Your task to perform on an android device: Open a new incognito tab in Chrome Image 0: 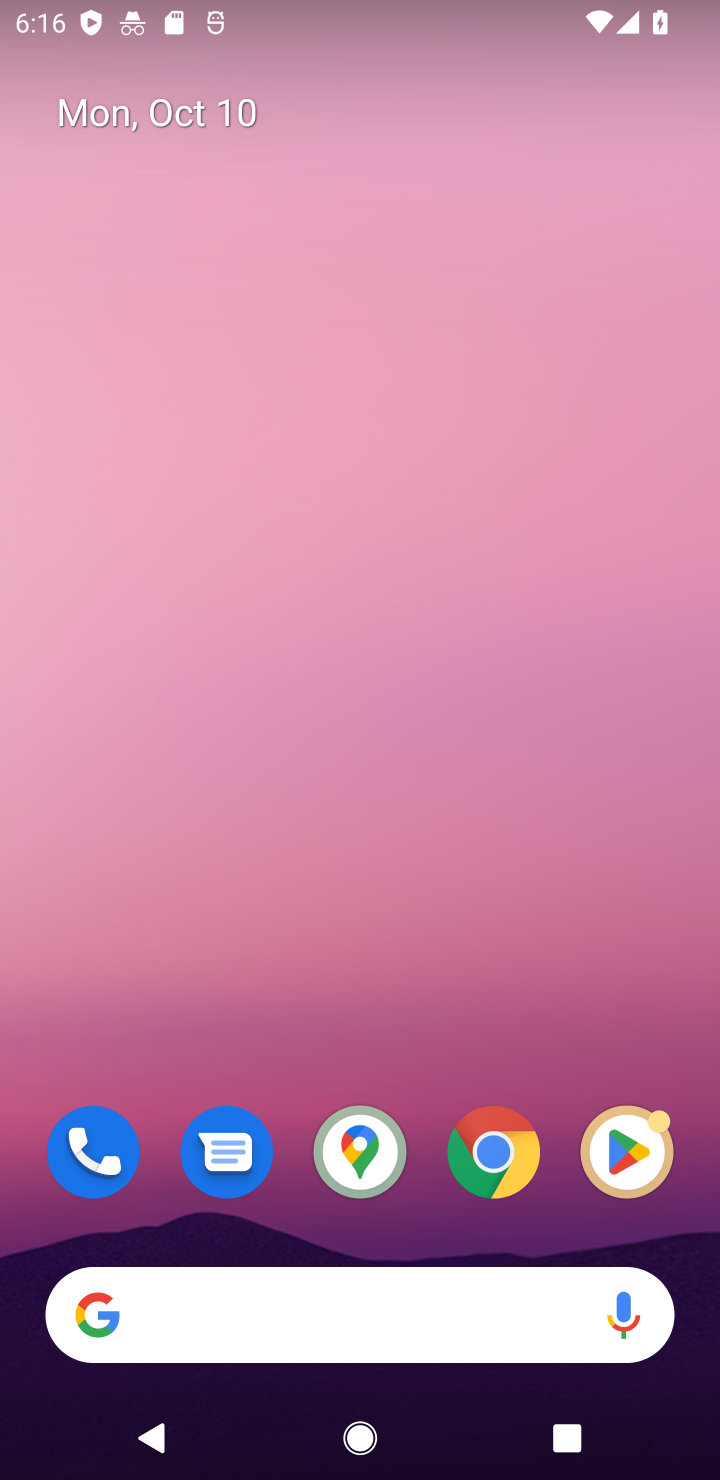
Step 0: click (492, 1155)
Your task to perform on an android device: Open a new incognito tab in Chrome Image 1: 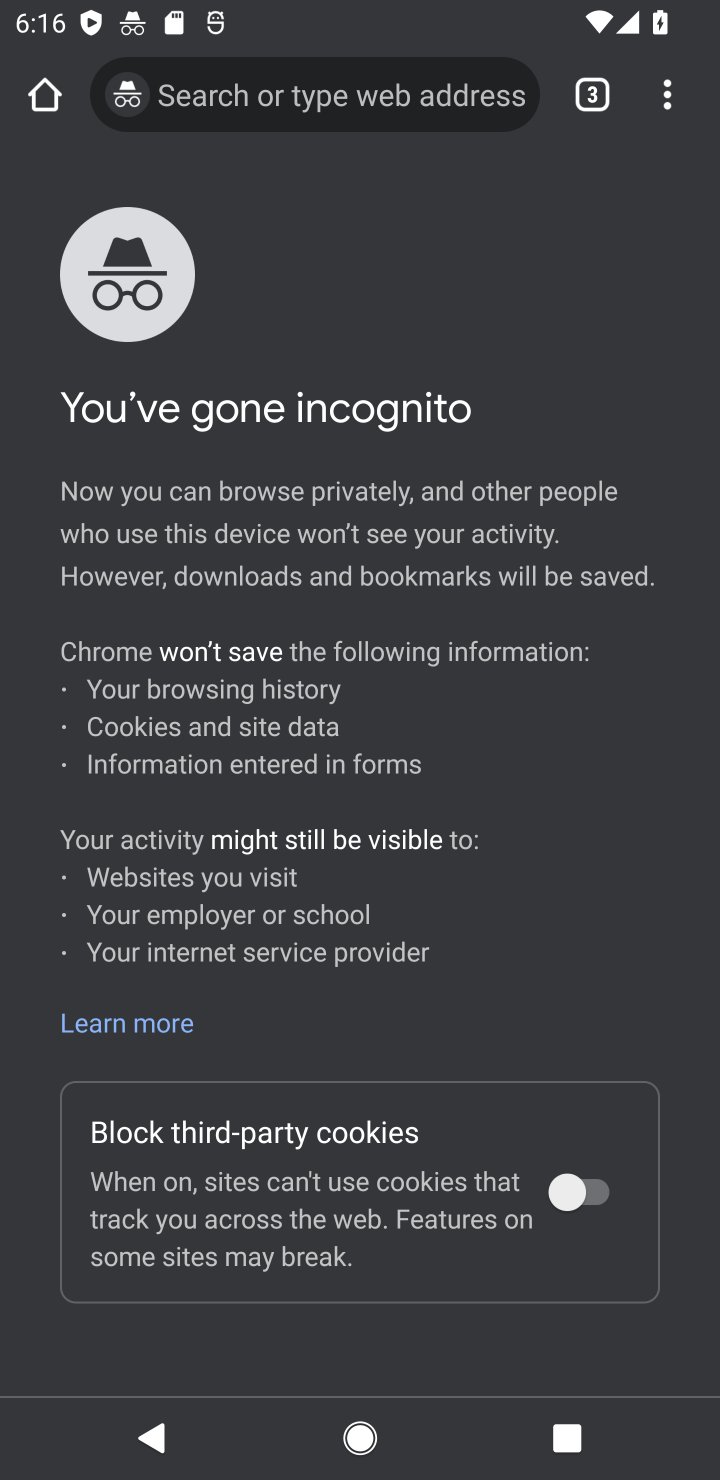
Step 1: task complete